Your task to perform on an android device: Open settings on Google Maps Image 0: 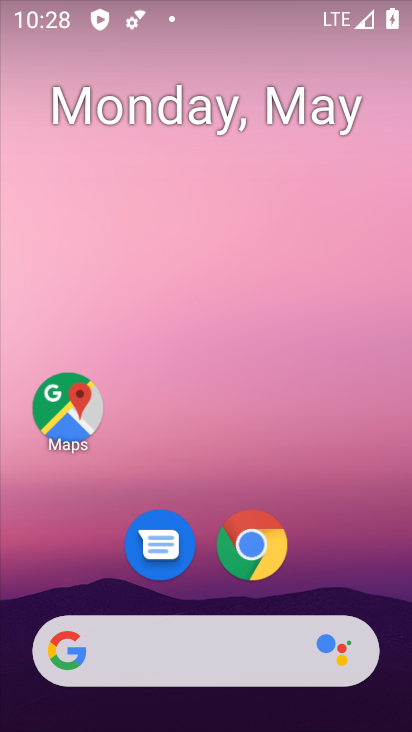
Step 0: click (66, 406)
Your task to perform on an android device: Open settings on Google Maps Image 1: 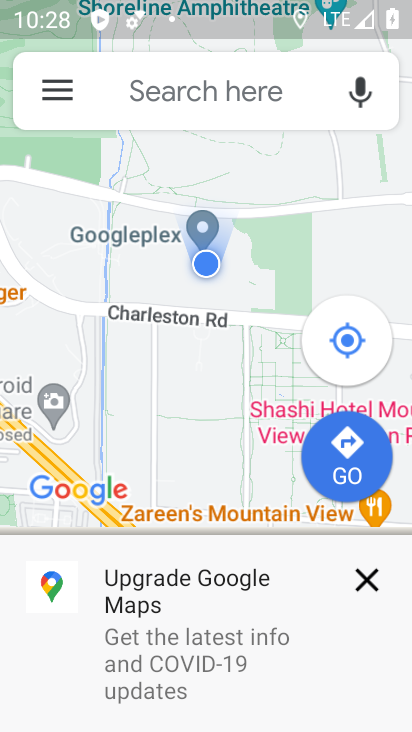
Step 1: click (58, 85)
Your task to perform on an android device: Open settings on Google Maps Image 2: 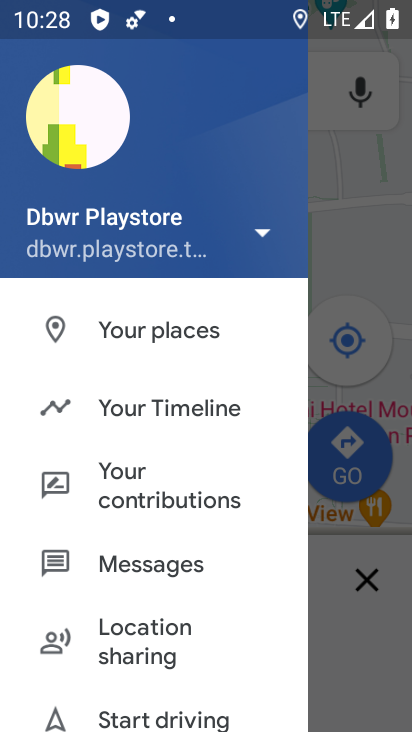
Step 2: drag from (160, 482) to (151, 393)
Your task to perform on an android device: Open settings on Google Maps Image 3: 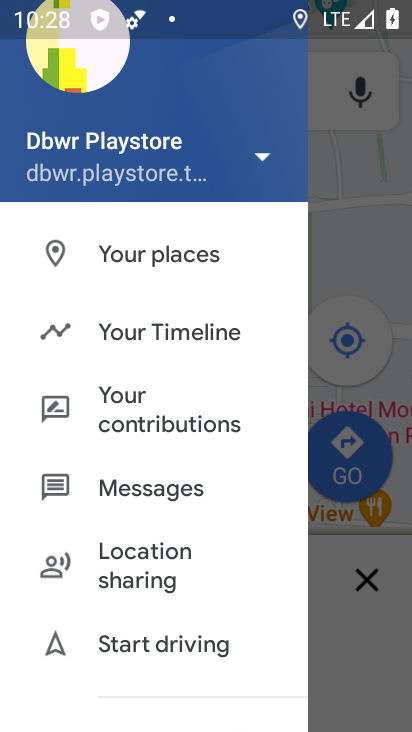
Step 3: drag from (157, 598) to (174, 465)
Your task to perform on an android device: Open settings on Google Maps Image 4: 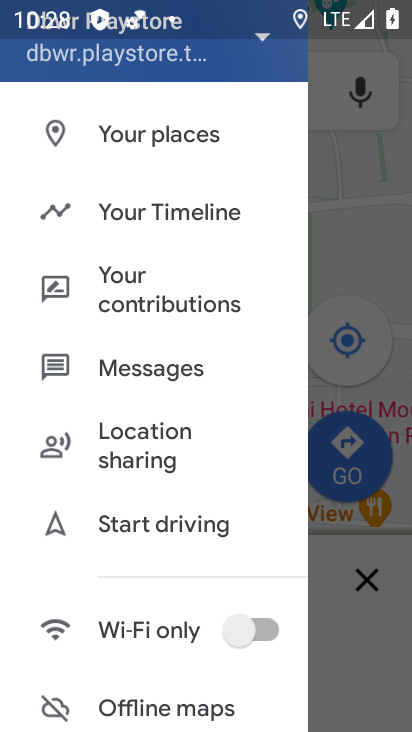
Step 4: drag from (142, 579) to (121, 328)
Your task to perform on an android device: Open settings on Google Maps Image 5: 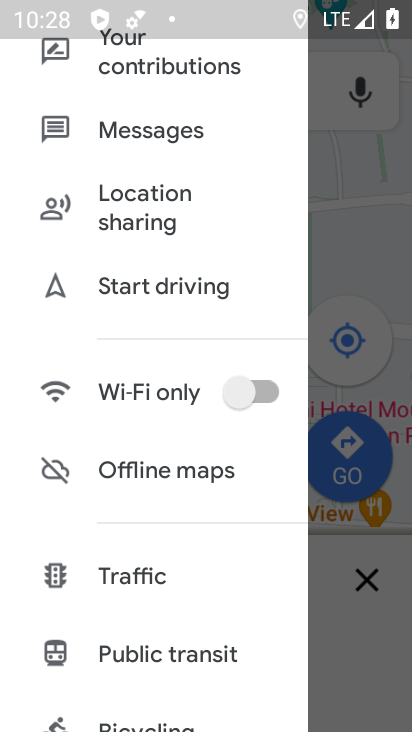
Step 5: drag from (141, 555) to (127, 346)
Your task to perform on an android device: Open settings on Google Maps Image 6: 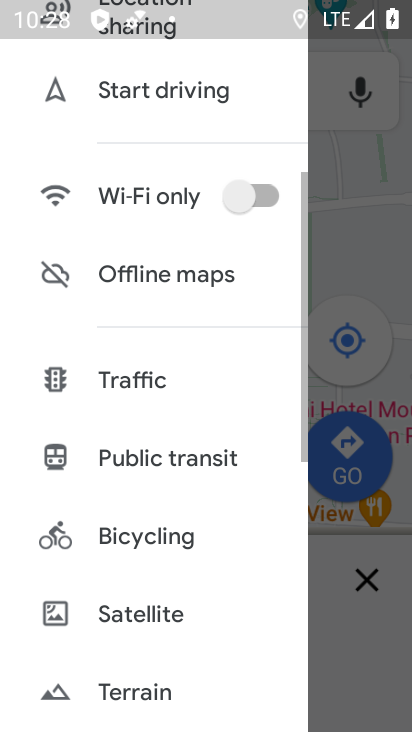
Step 6: drag from (120, 579) to (128, 379)
Your task to perform on an android device: Open settings on Google Maps Image 7: 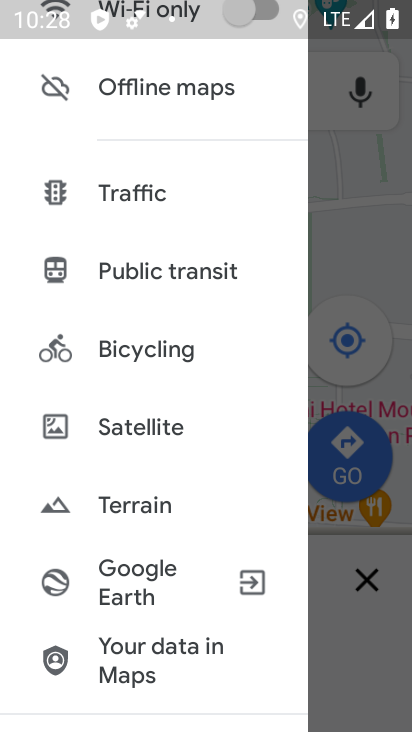
Step 7: drag from (114, 578) to (138, 362)
Your task to perform on an android device: Open settings on Google Maps Image 8: 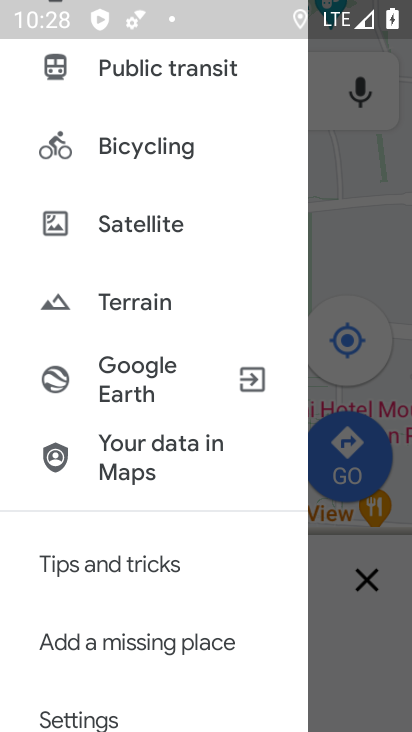
Step 8: drag from (101, 598) to (124, 409)
Your task to perform on an android device: Open settings on Google Maps Image 9: 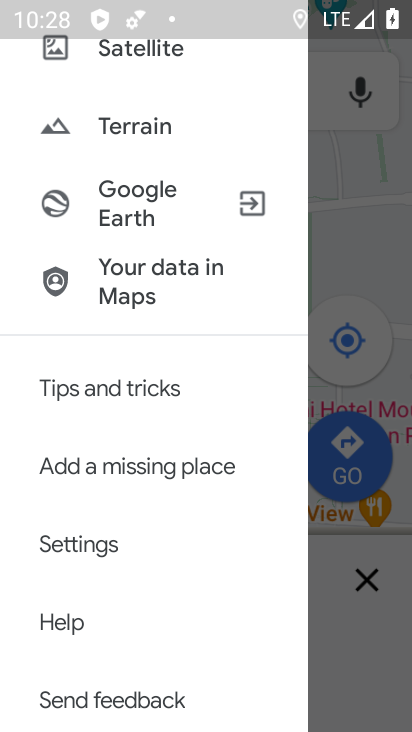
Step 9: click (89, 550)
Your task to perform on an android device: Open settings on Google Maps Image 10: 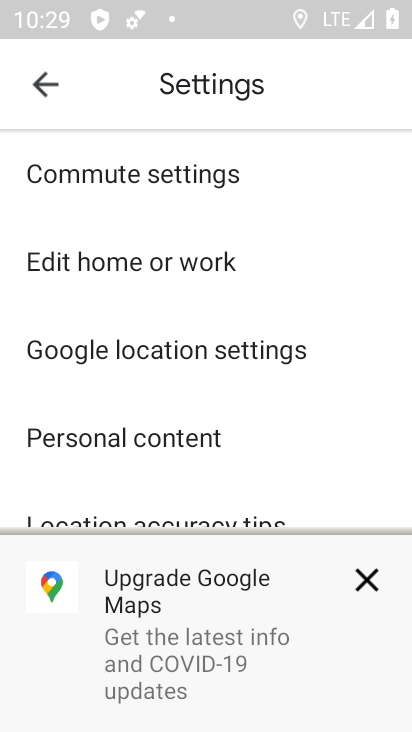
Step 10: task complete